Your task to perform on an android device: turn on showing notifications on the lock screen Image 0: 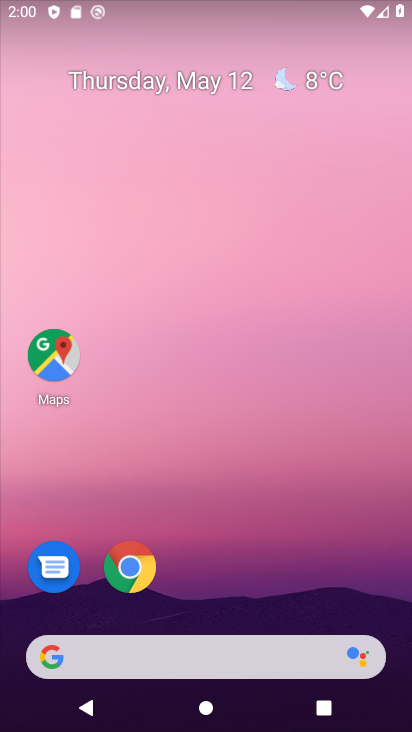
Step 0: drag from (187, 546) to (240, 179)
Your task to perform on an android device: turn on showing notifications on the lock screen Image 1: 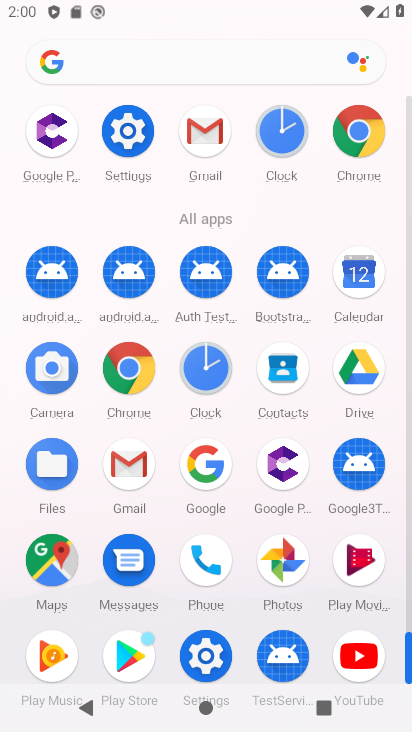
Step 1: click (133, 135)
Your task to perform on an android device: turn on showing notifications on the lock screen Image 2: 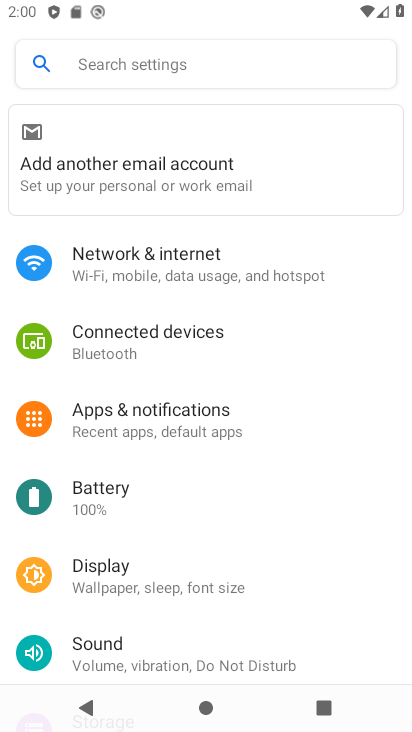
Step 2: click (177, 415)
Your task to perform on an android device: turn on showing notifications on the lock screen Image 3: 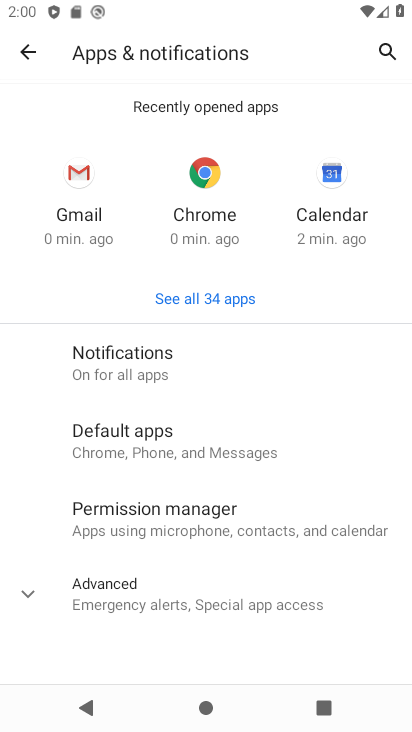
Step 3: click (170, 365)
Your task to perform on an android device: turn on showing notifications on the lock screen Image 4: 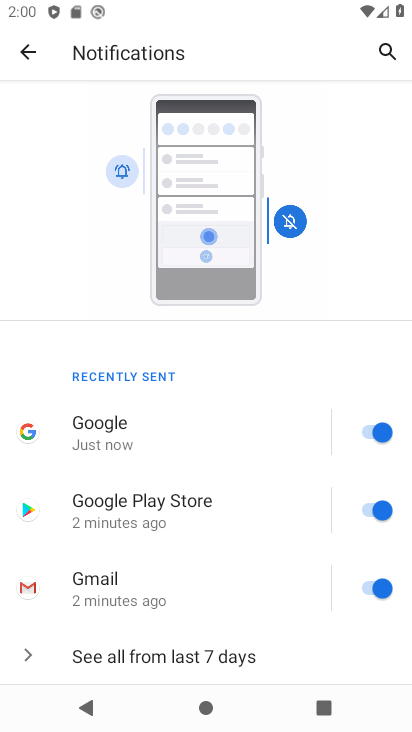
Step 4: drag from (256, 480) to (270, 285)
Your task to perform on an android device: turn on showing notifications on the lock screen Image 5: 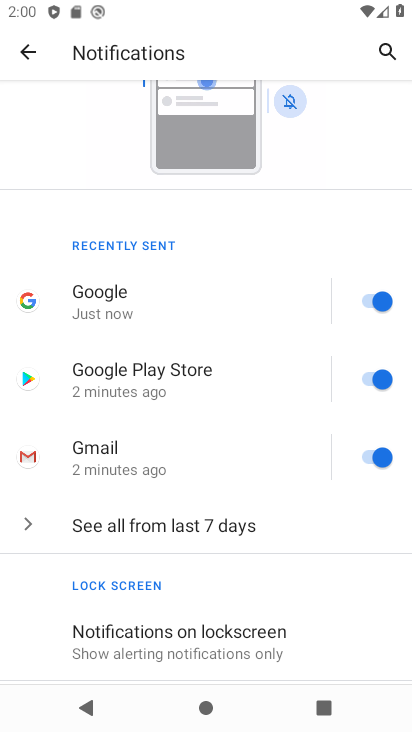
Step 5: click (243, 653)
Your task to perform on an android device: turn on showing notifications on the lock screen Image 6: 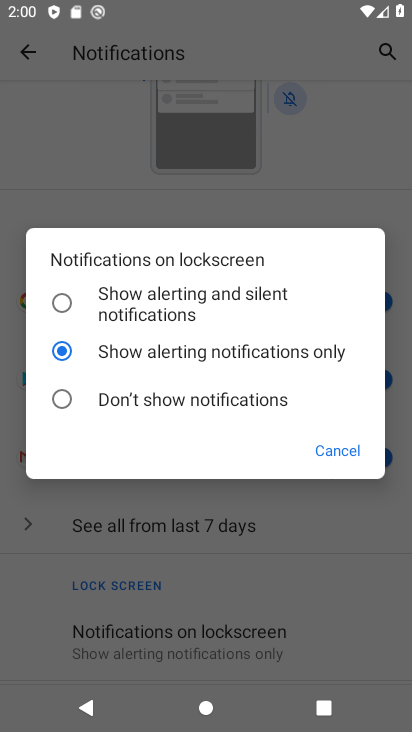
Step 6: click (190, 299)
Your task to perform on an android device: turn on showing notifications on the lock screen Image 7: 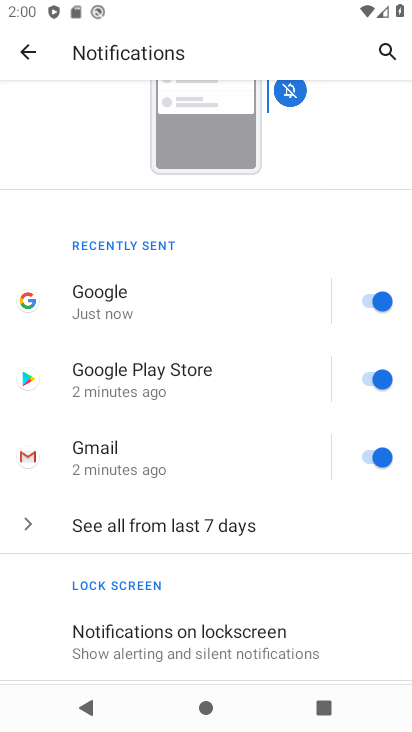
Step 7: click (210, 621)
Your task to perform on an android device: turn on showing notifications on the lock screen Image 8: 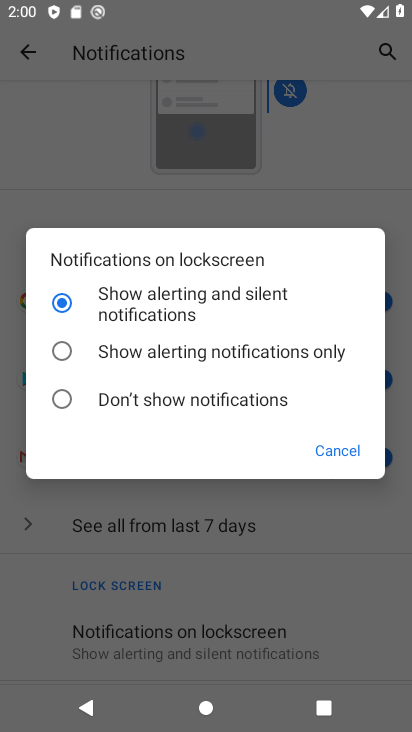
Step 8: click (226, 293)
Your task to perform on an android device: turn on showing notifications on the lock screen Image 9: 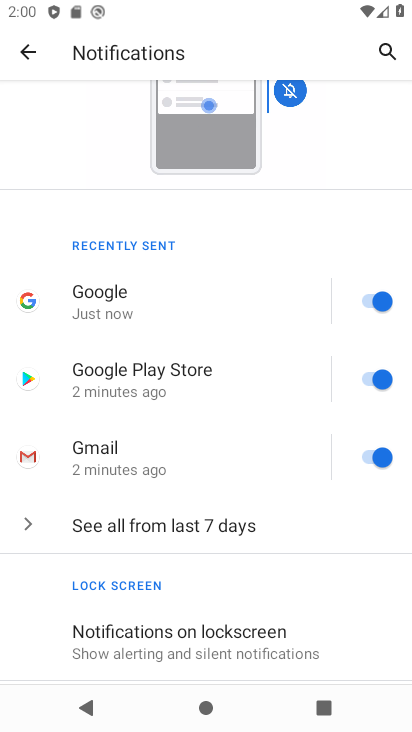
Step 9: task complete